Your task to perform on an android device: Open notification settings Image 0: 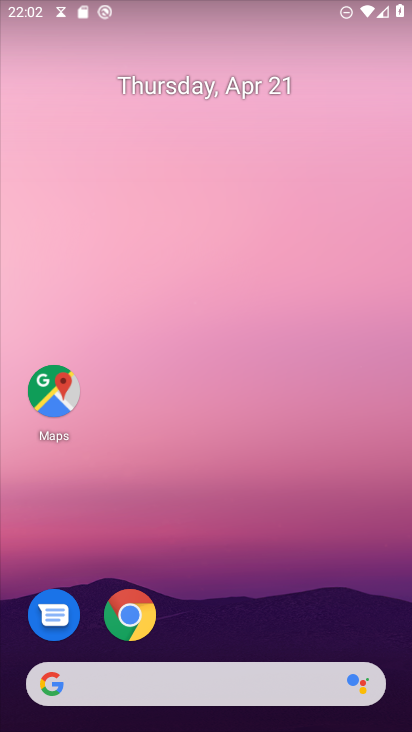
Step 0: drag from (205, 632) to (251, 237)
Your task to perform on an android device: Open notification settings Image 1: 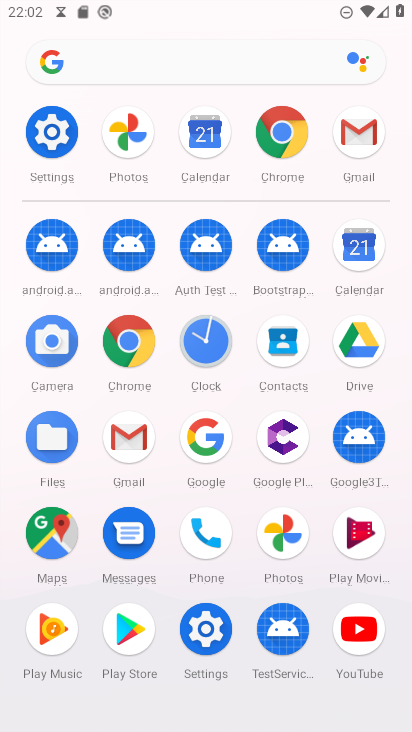
Step 1: drag from (170, 665) to (312, 419)
Your task to perform on an android device: Open notification settings Image 2: 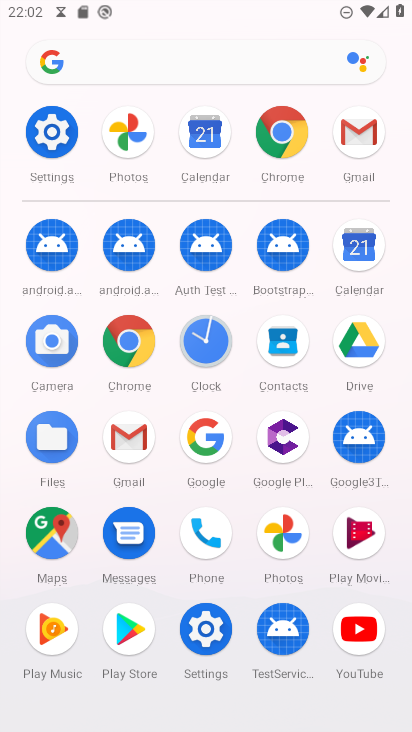
Step 2: click (206, 628)
Your task to perform on an android device: Open notification settings Image 3: 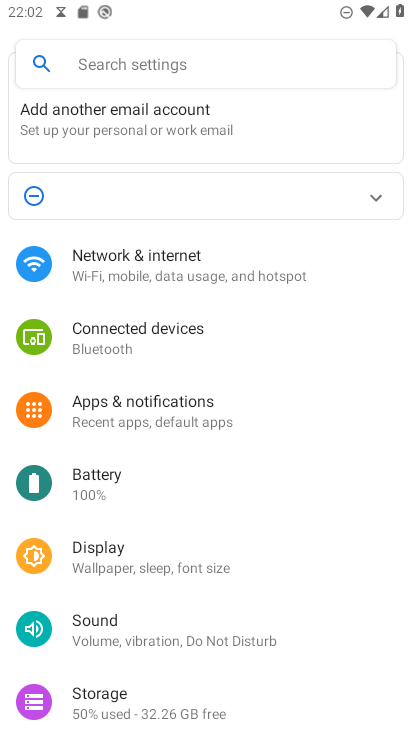
Step 3: click (197, 415)
Your task to perform on an android device: Open notification settings Image 4: 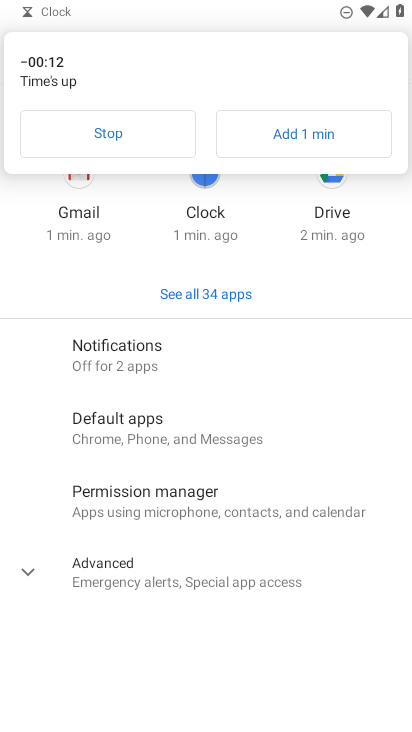
Step 4: click (138, 133)
Your task to perform on an android device: Open notification settings Image 5: 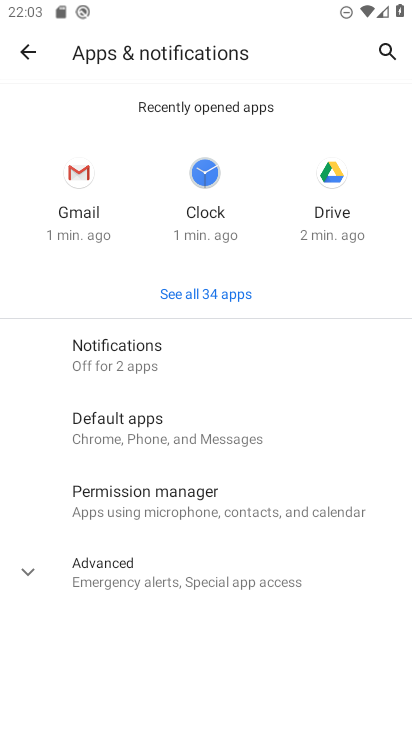
Step 5: click (170, 372)
Your task to perform on an android device: Open notification settings Image 6: 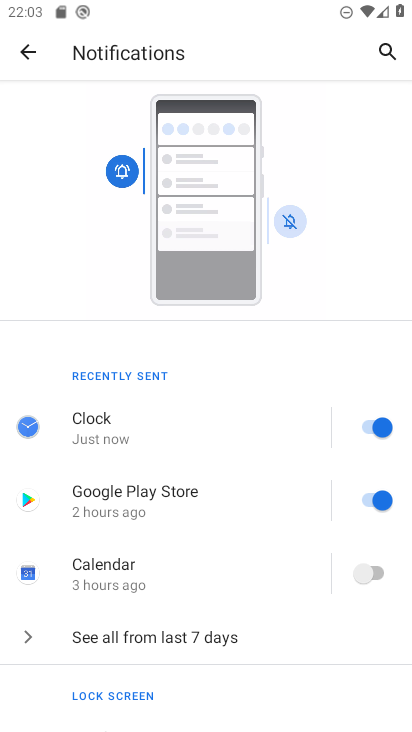
Step 6: drag from (161, 630) to (234, 134)
Your task to perform on an android device: Open notification settings Image 7: 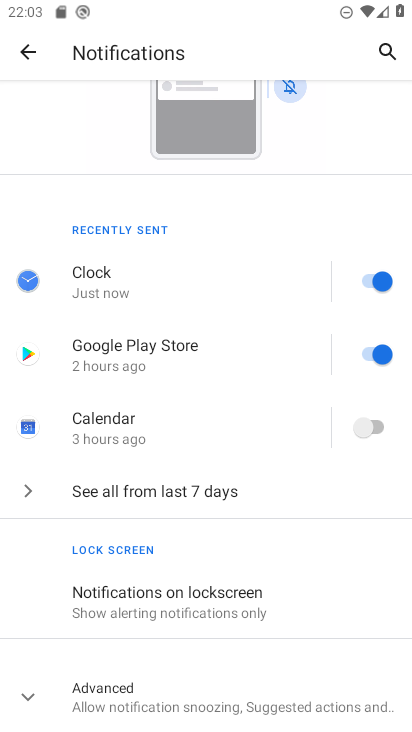
Step 7: click (143, 699)
Your task to perform on an android device: Open notification settings Image 8: 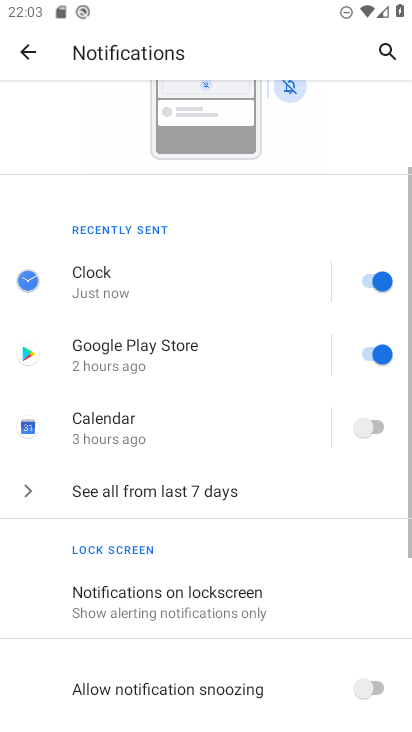
Step 8: drag from (166, 689) to (230, 242)
Your task to perform on an android device: Open notification settings Image 9: 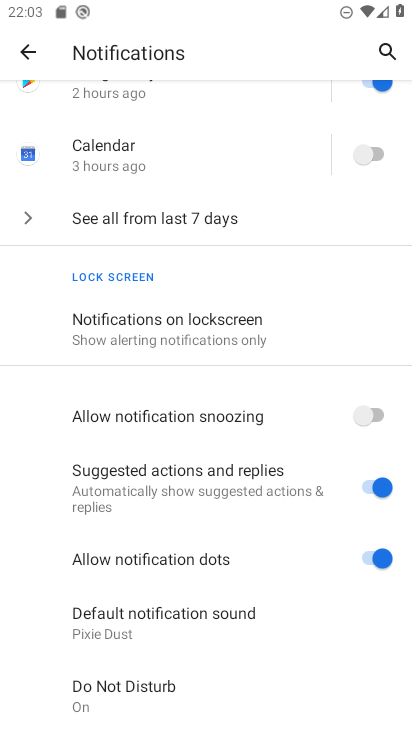
Step 9: drag from (254, 604) to (289, 319)
Your task to perform on an android device: Open notification settings Image 10: 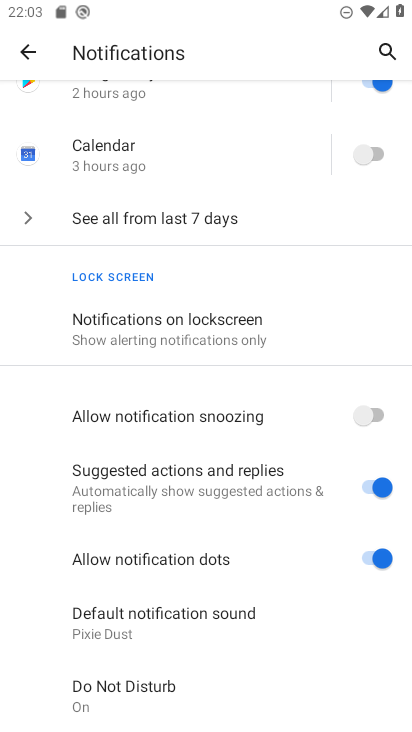
Step 10: click (365, 413)
Your task to perform on an android device: Open notification settings Image 11: 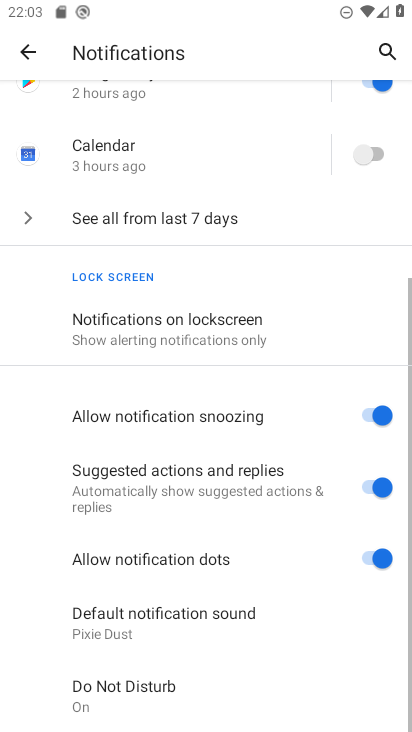
Step 11: task complete